Your task to perform on an android device: check battery use Image 0: 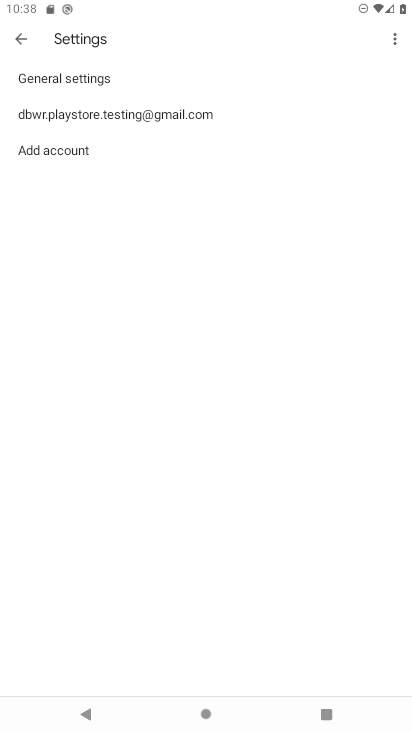
Step 0: press home button
Your task to perform on an android device: check battery use Image 1: 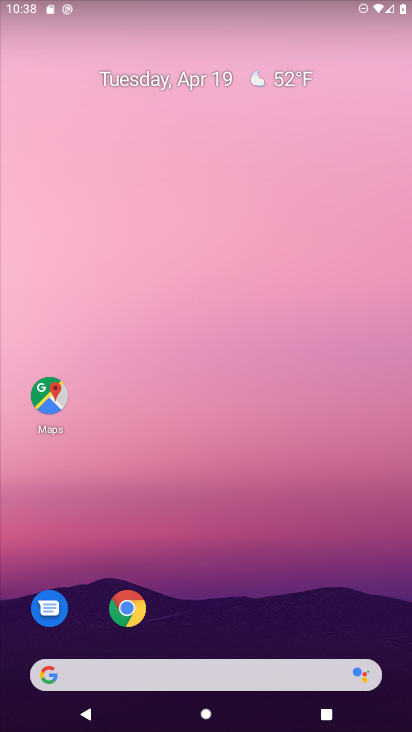
Step 1: drag from (266, 555) to (279, 73)
Your task to perform on an android device: check battery use Image 2: 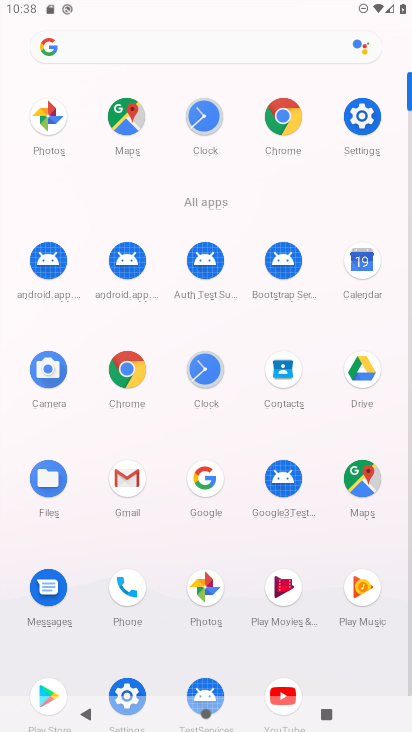
Step 2: click (356, 122)
Your task to perform on an android device: check battery use Image 3: 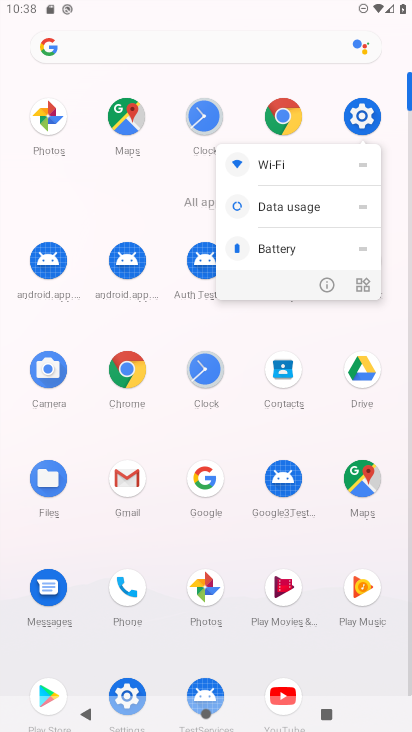
Step 3: click (356, 122)
Your task to perform on an android device: check battery use Image 4: 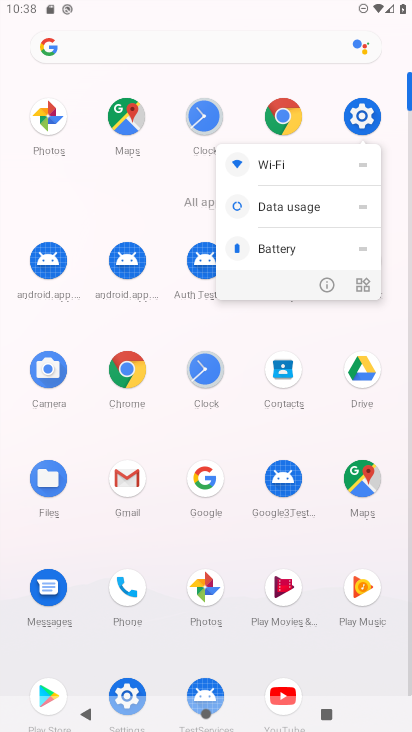
Step 4: click (356, 122)
Your task to perform on an android device: check battery use Image 5: 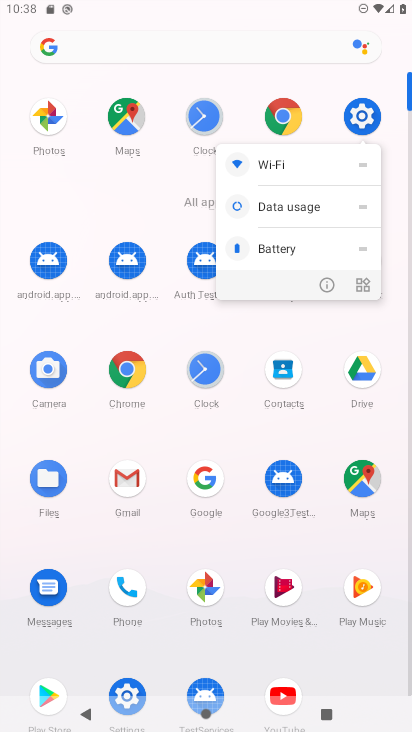
Step 5: click (356, 122)
Your task to perform on an android device: check battery use Image 6: 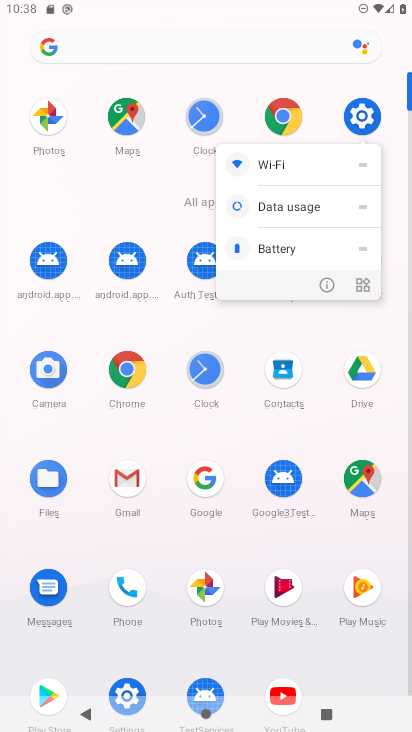
Step 6: click (358, 124)
Your task to perform on an android device: check battery use Image 7: 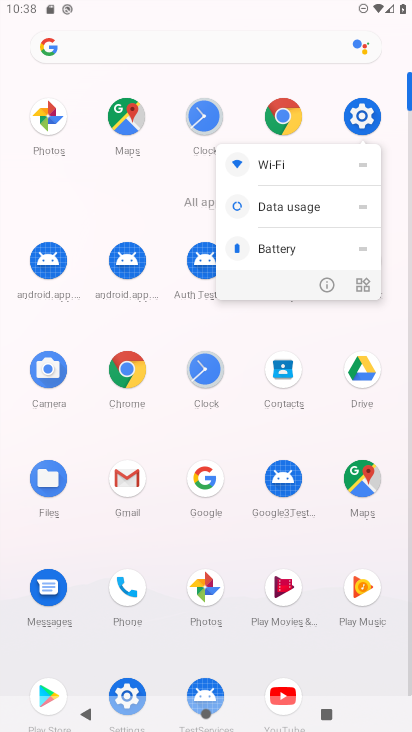
Step 7: click (359, 126)
Your task to perform on an android device: check battery use Image 8: 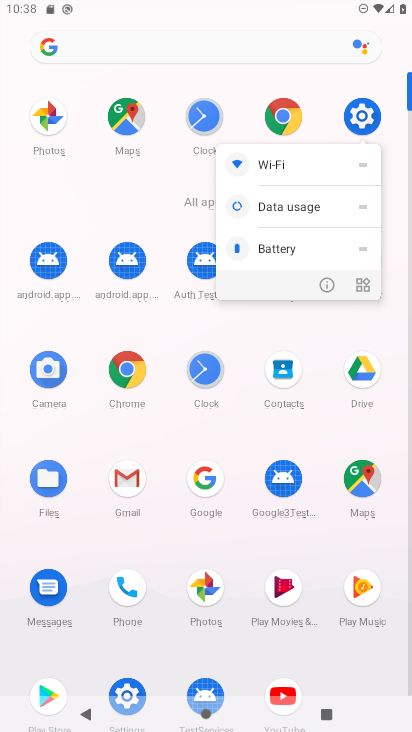
Step 8: click (359, 126)
Your task to perform on an android device: check battery use Image 9: 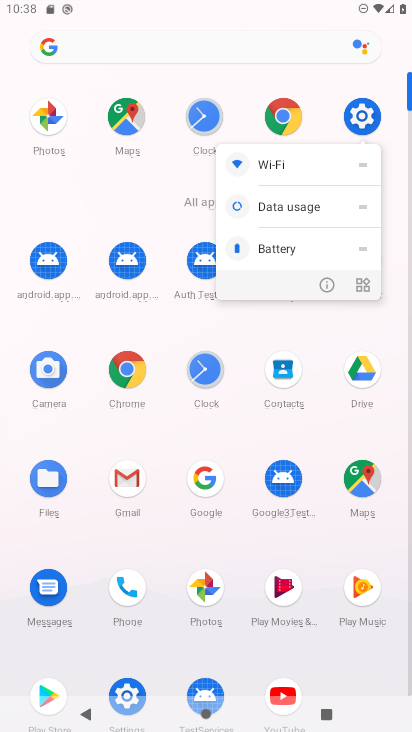
Step 9: click (359, 126)
Your task to perform on an android device: check battery use Image 10: 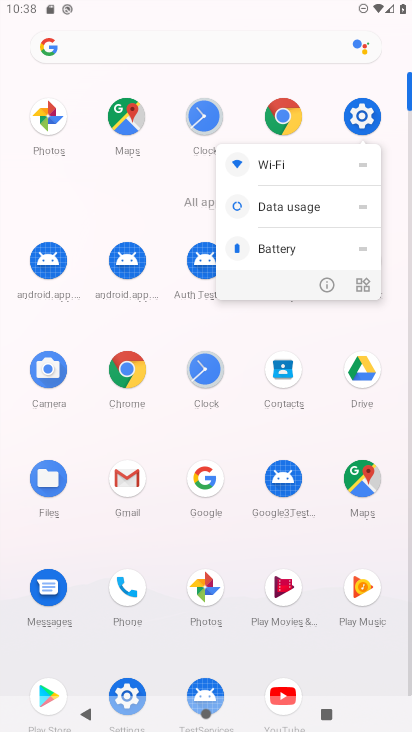
Step 10: click (359, 126)
Your task to perform on an android device: check battery use Image 11: 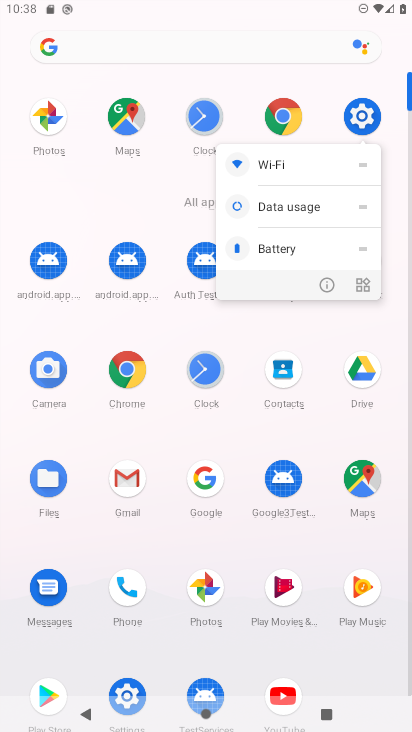
Step 11: click (359, 126)
Your task to perform on an android device: check battery use Image 12: 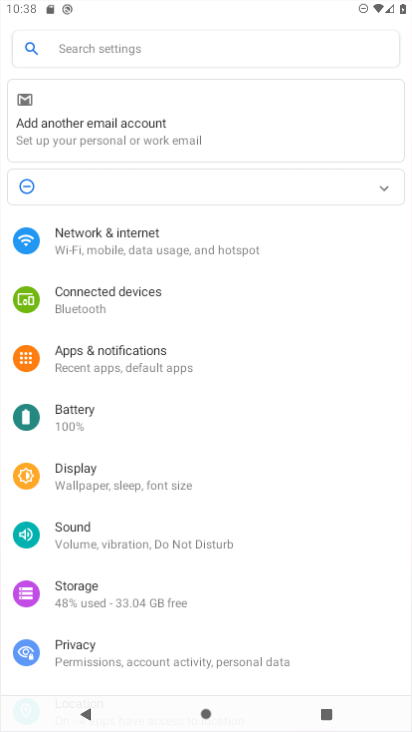
Step 12: click (359, 126)
Your task to perform on an android device: check battery use Image 13: 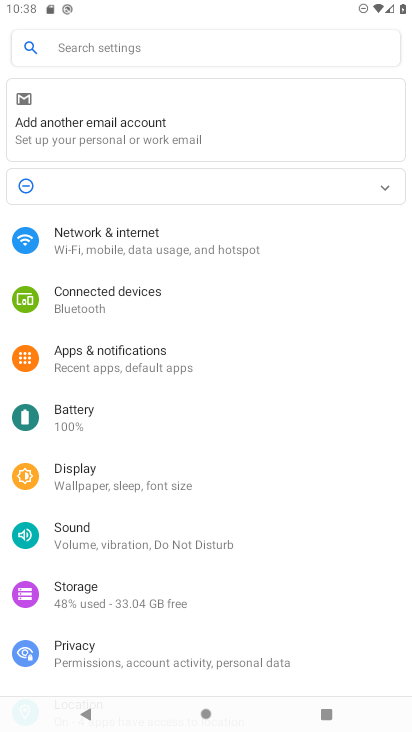
Step 13: click (36, 399)
Your task to perform on an android device: check battery use Image 14: 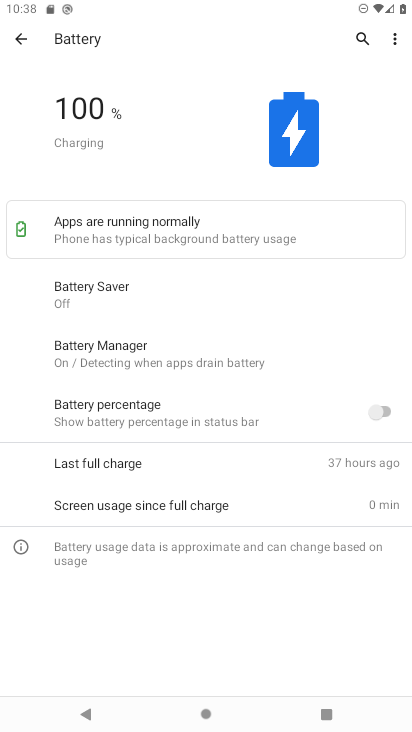
Step 14: task complete